Your task to perform on an android device: read, delete, or share a saved page in the chrome app Image 0: 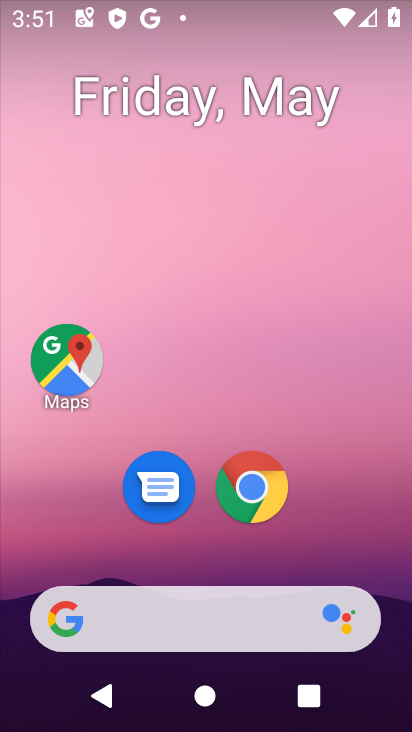
Step 0: drag from (406, 637) to (296, 67)
Your task to perform on an android device: read, delete, or share a saved page in the chrome app Image 1: 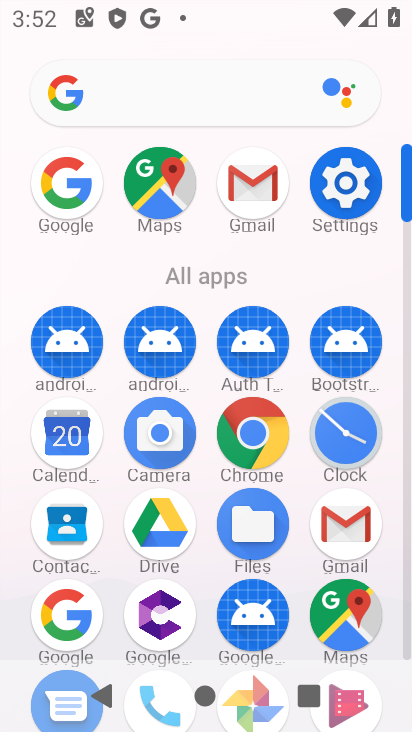
Step 1: click (251, 449)
Your task to perform on an android device: read, delete, or share a saved page in the chrome app Image 2: 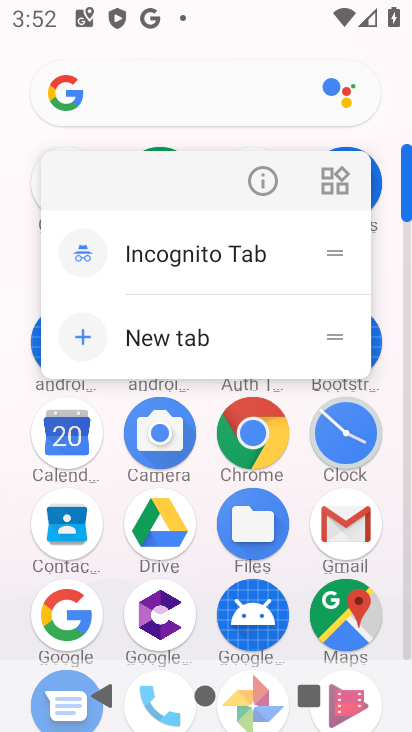
Step 2: click (24, 165)
Your task to perform on an android device: read, delete, or share a saved page in the chrome app Image 3: 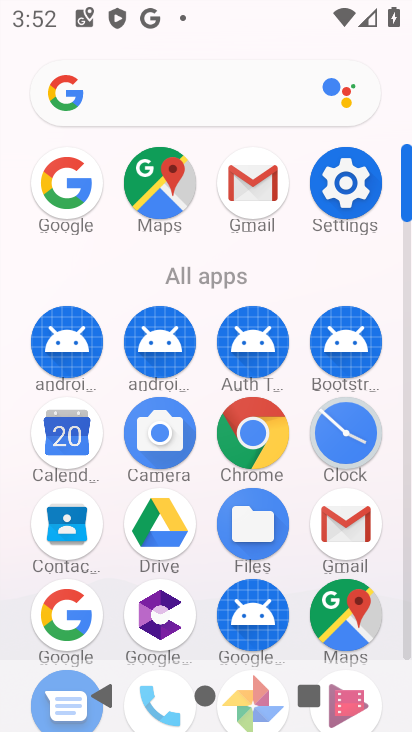
Step 3: click (251, 439)
Your task to perform on an android device: read, delete, or share a saved page in the chrome app Image 4: 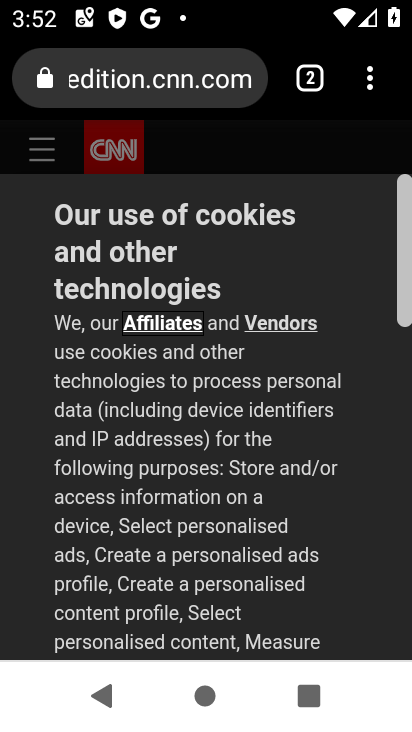
Step 4: press back button
Your task to perform on an android device: read, delete, or share a saved page in the chrome app Image 5: 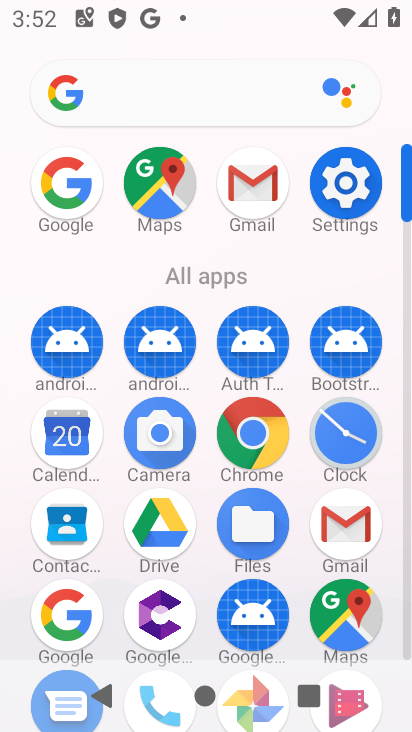
Step 5: click (242, 443)
Your task to perform on an android device: read, delete, or share a saved page in the chrome app Image 6: 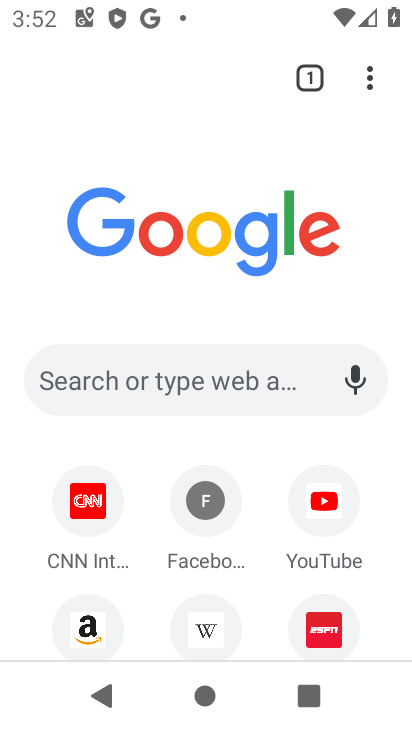
Step 6: task complete